Your task to perform on an android device: set the stopwatch Image 0: 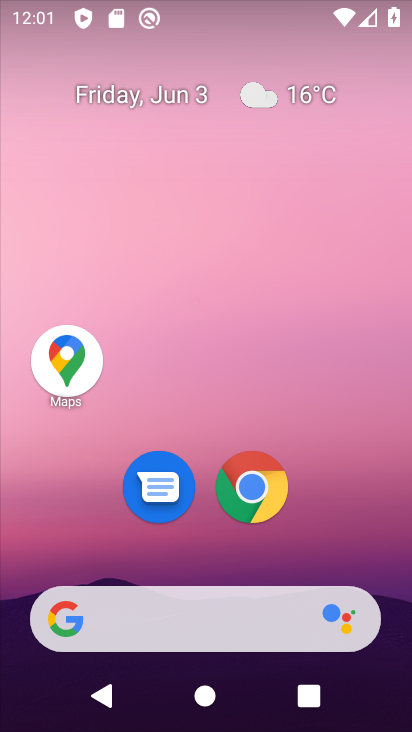
Step 0: drag from (353, 549) to (332, 366)
Your task to perform on an android device: set the stopwatch Image 1: 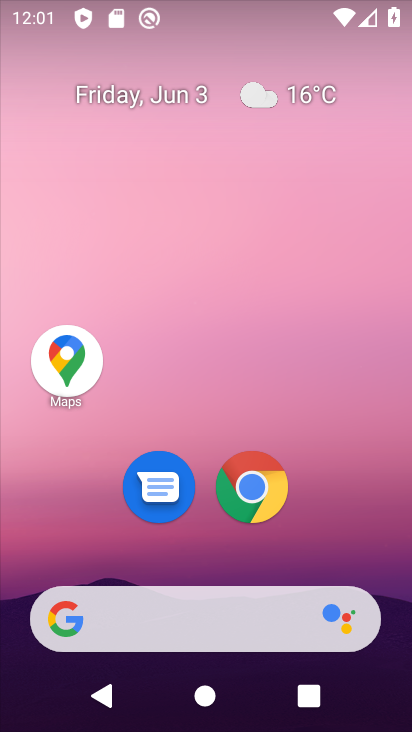
Step 1: drag from (361, 525) to (327, 112)
Your task to perform on an android device: set the stopwatch Image 2: 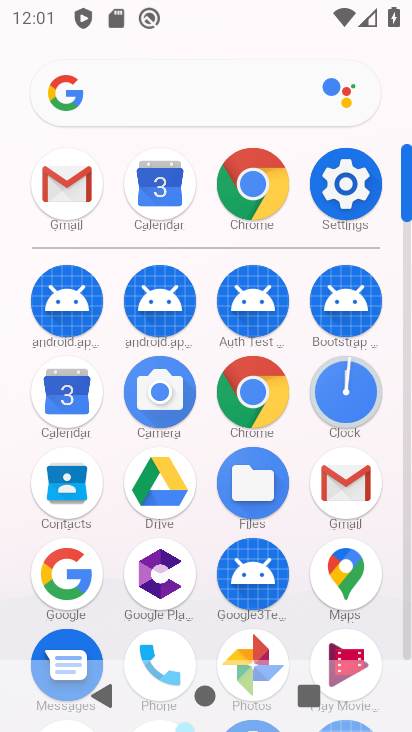
Step 2: click (363, 376)
Your task to perform on an android device: set the stopwatch Image 3: 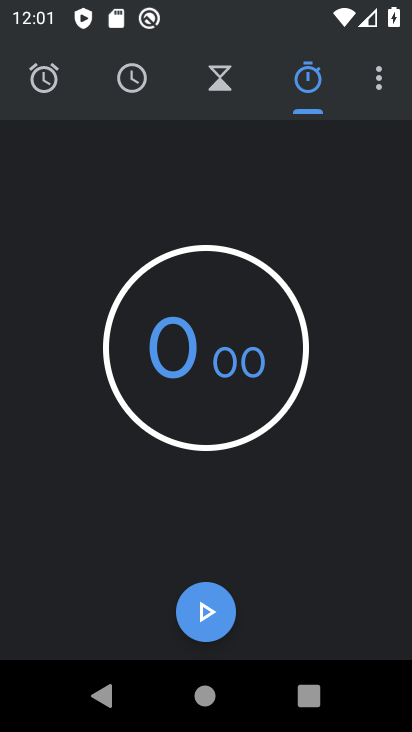
Step 3: task complete